Your task to perform on an android device: open app "Instagram" (install if not already installed) and go to login screen Image 0: 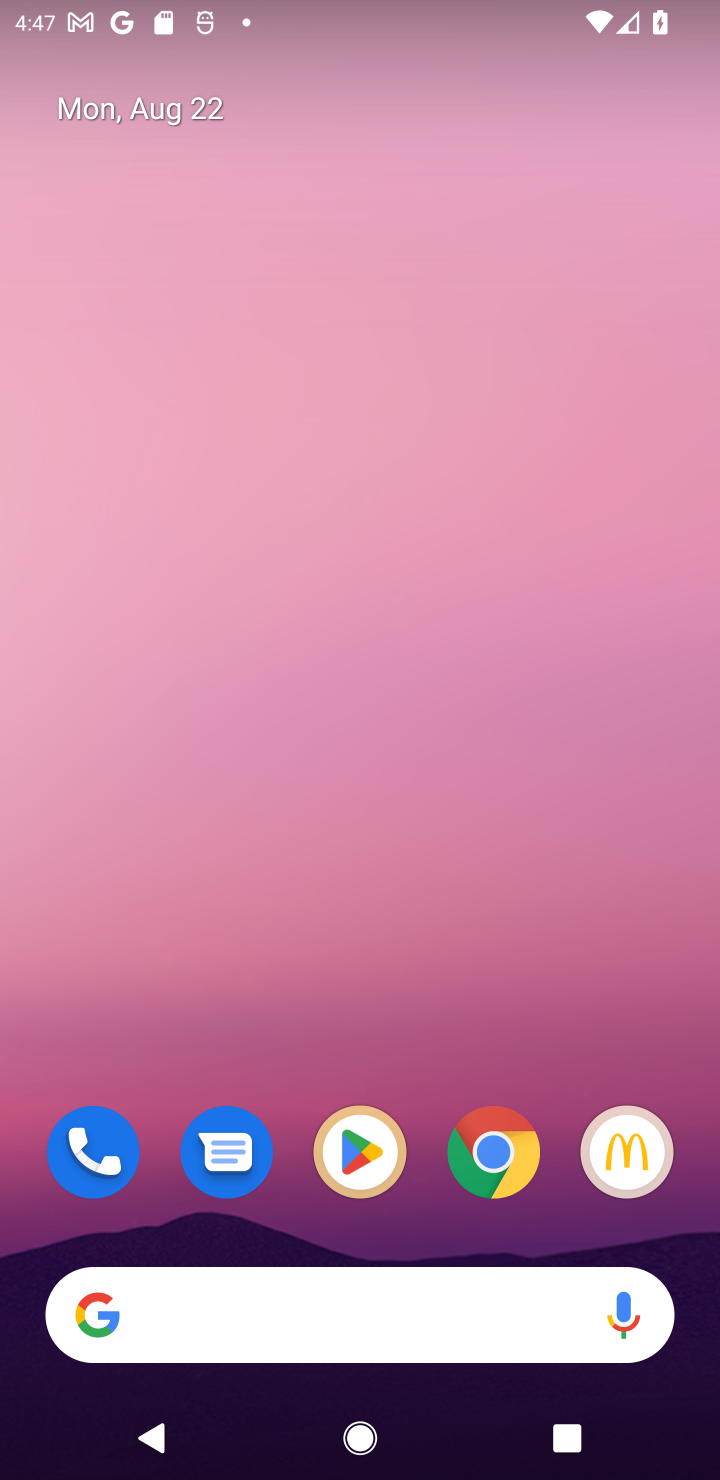
Step 0: click (356, 1189)
Your task to perform on an android device: open app "Instagram" (install if not already installed) and go to login screen Image 1: 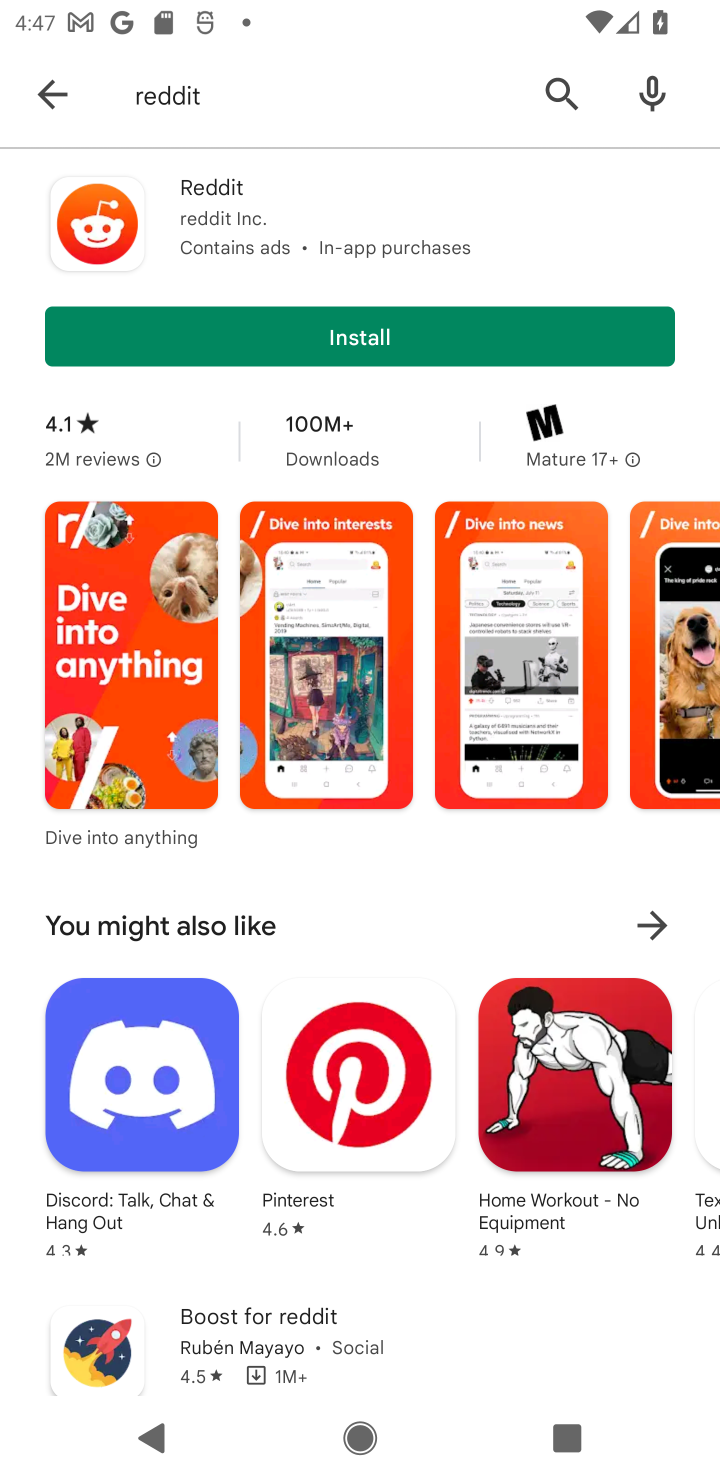
Step 1: click (35, 95)
Your task to perform on an android device: open app "Instagram" (install if not already installed) and go to login screen Image 2: 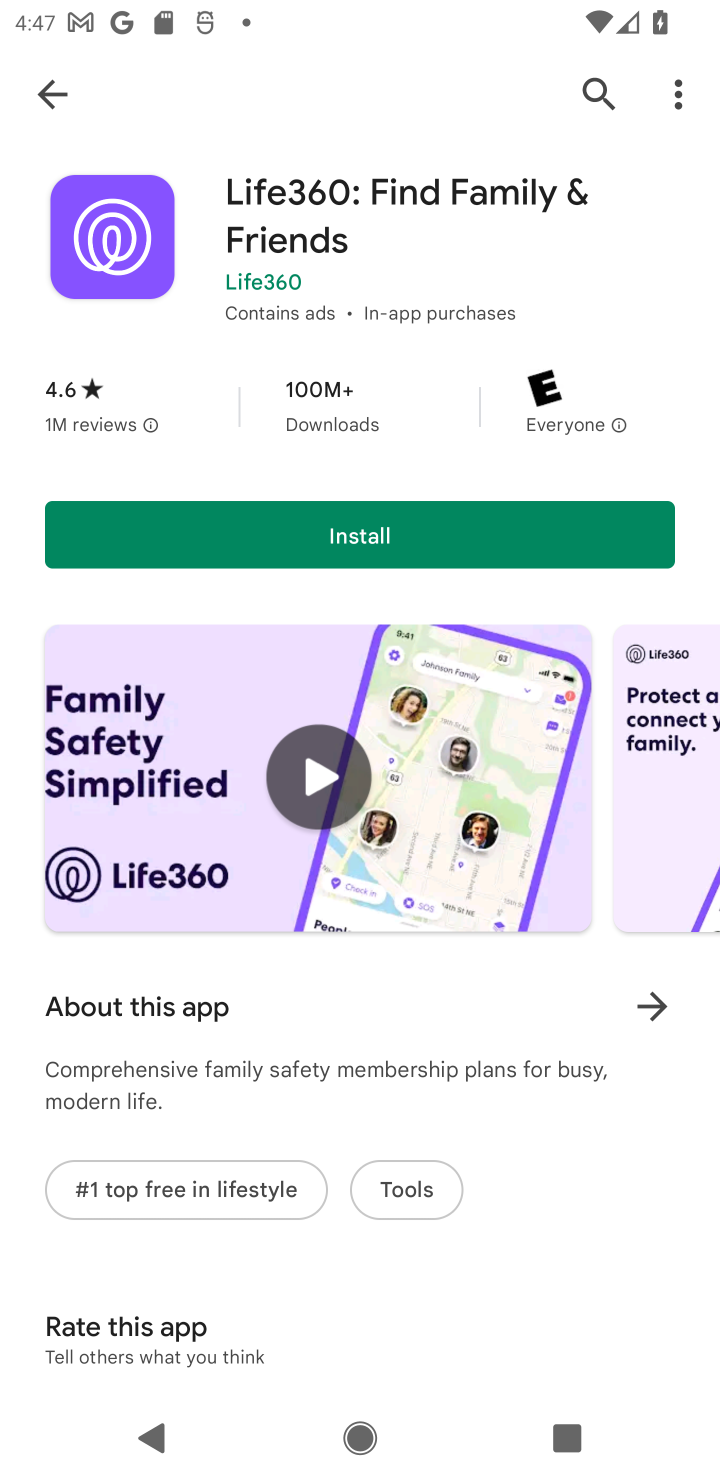
Step 2: click (612, 91)
Your task to perform on an android device: open app "Instagram" (install if not already installed) and go to login screen Image 3: 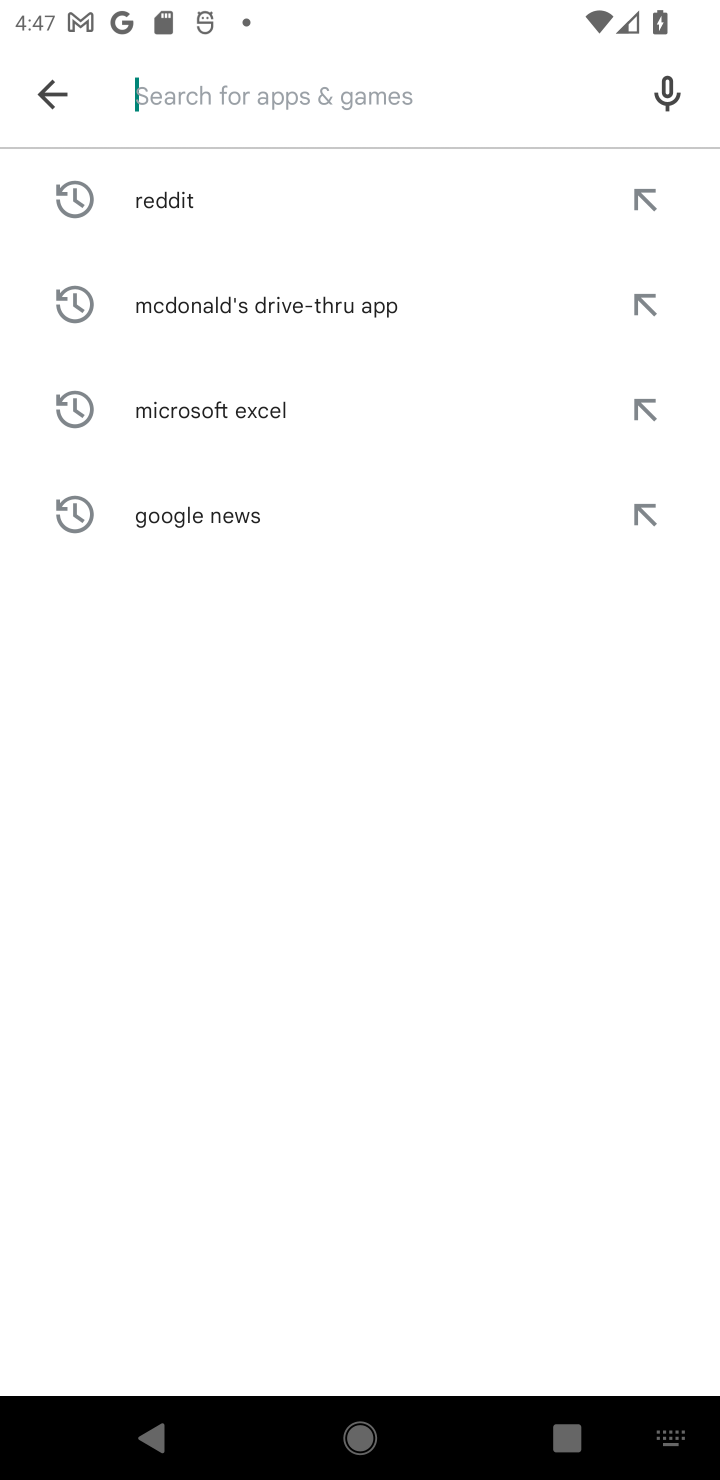
Step 3: type "Instagram"
Your task to perform on an android device: open app "Instagram" (install if not already installed) and go to login screen Image 4: 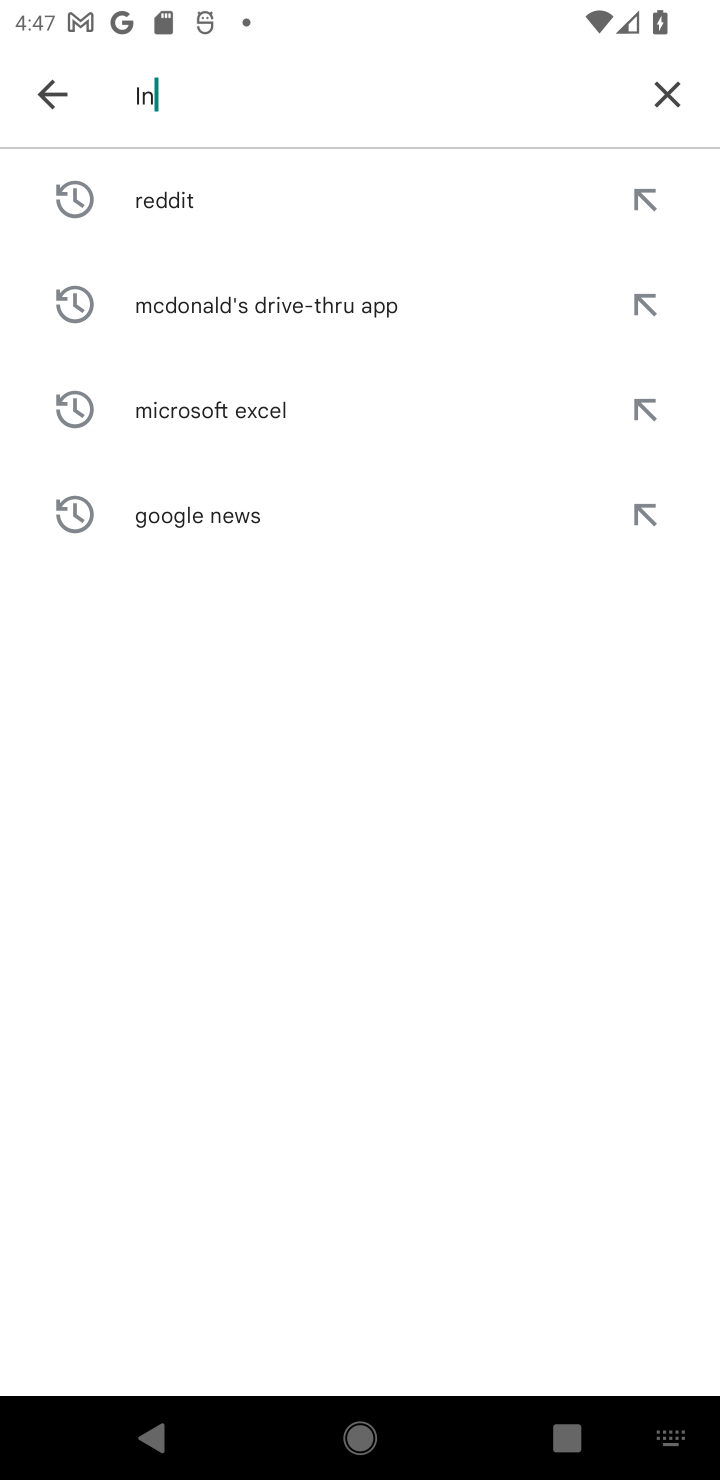
Step 4: type ""
Your task to perform on an android device: open app "Instagram" (install if not already installed) and go to login screen Image 5: 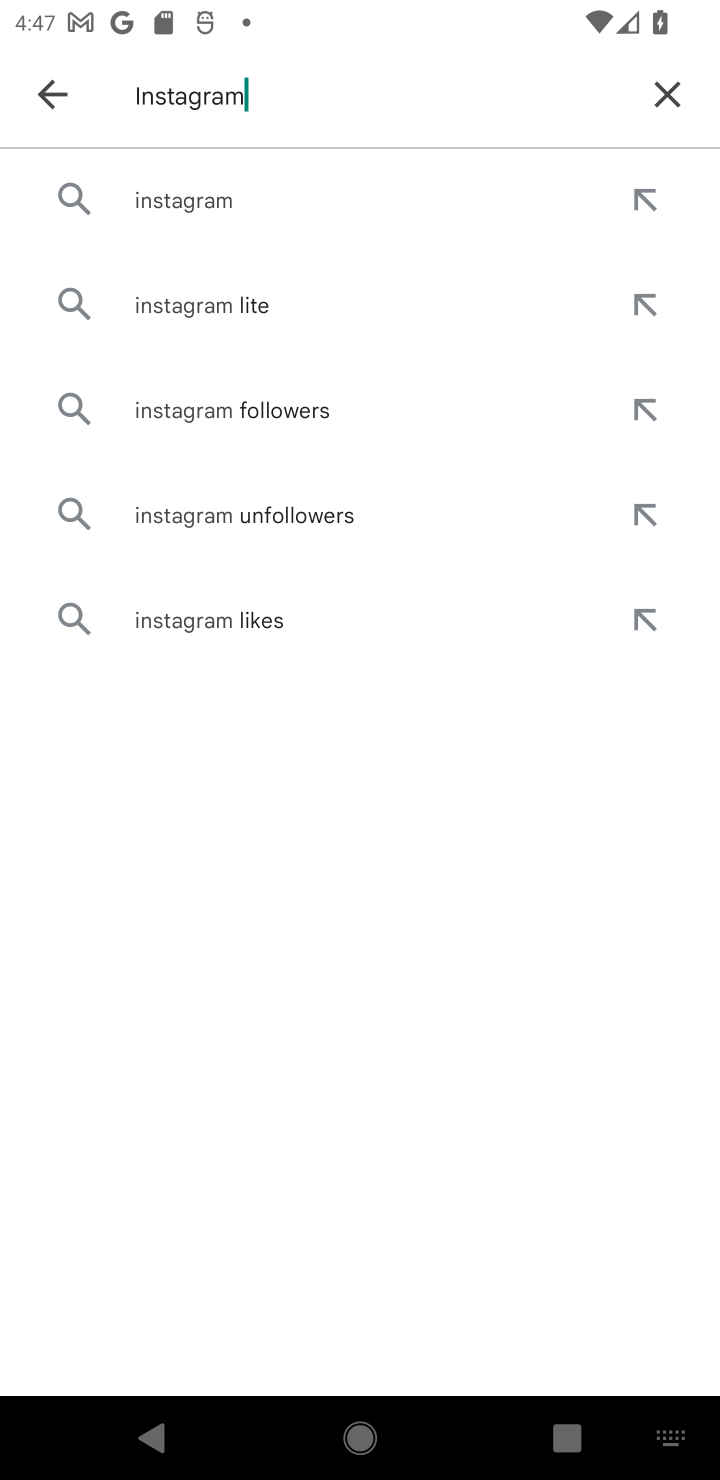
Step 5: click (213, 208)
Your task to perform on an android device: open app "Instagram" (install if not already installed) and go to login screen Image 6: 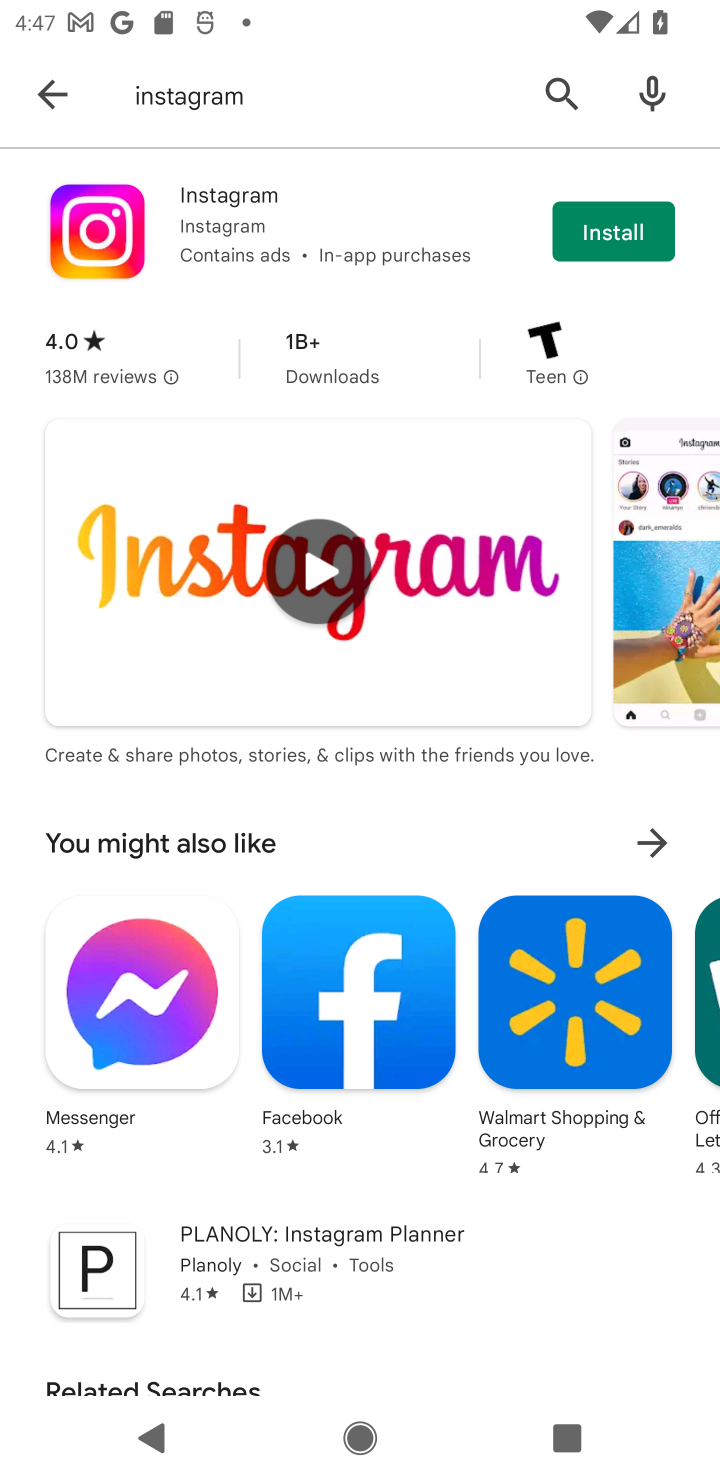
Step 6: click (619, 256)
Your task to perform on an android device: open app "Instagram" (install if not already installed) and go to login screen Image 7: 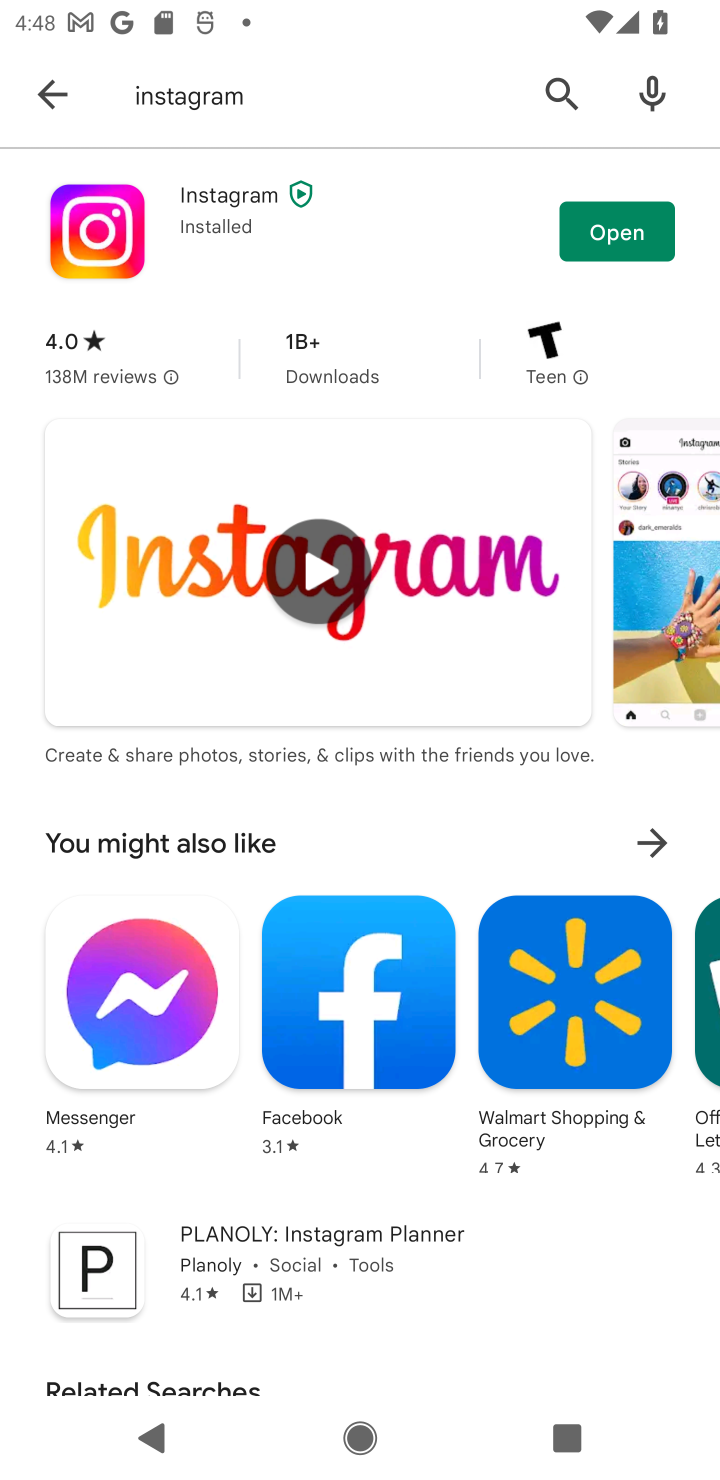
Step 7: click (626, 263)
Your task to perform on an android device: open app "Instagram" (install if not already installed) and go to login screen Image 8: 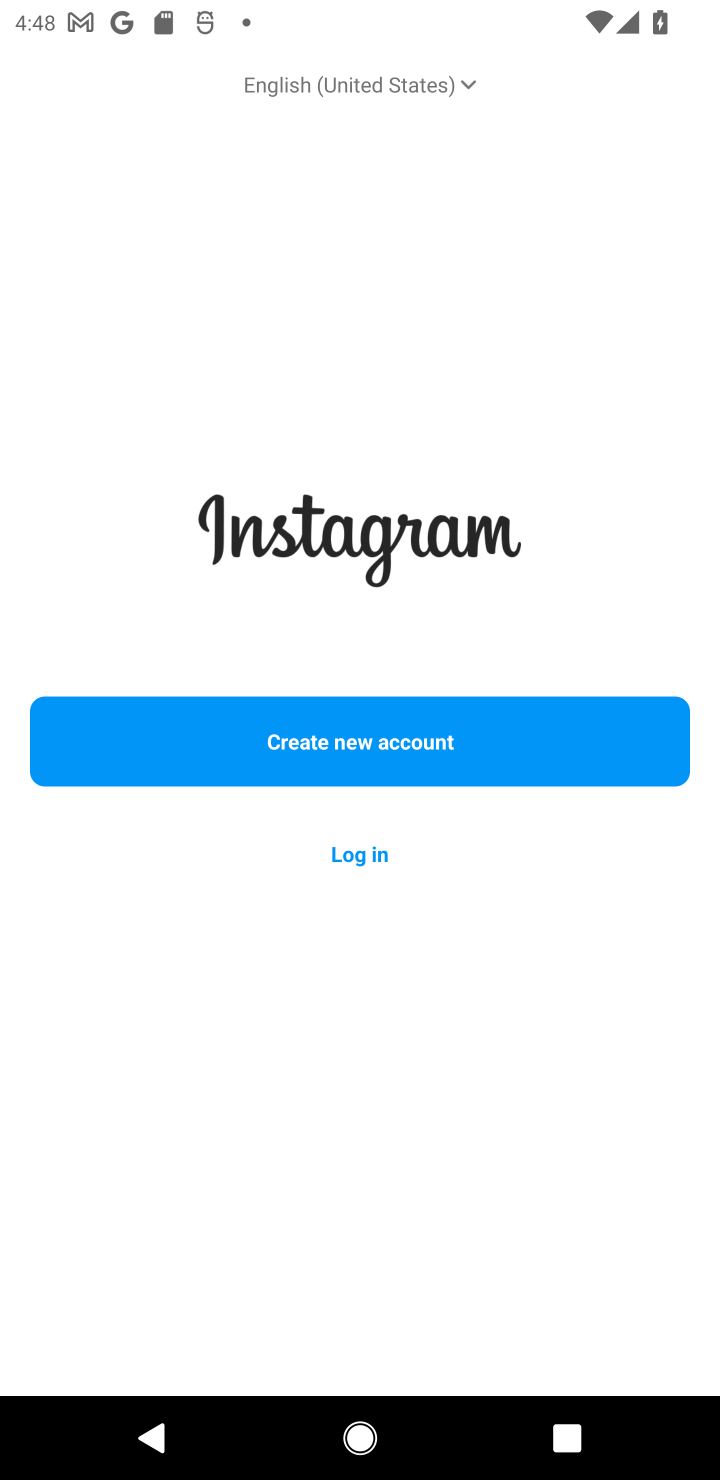
Step 8: click (361, 850)
Your task to perform on an android device: open app "Instagram" (install if not already installed) and go to login screen Image 9: 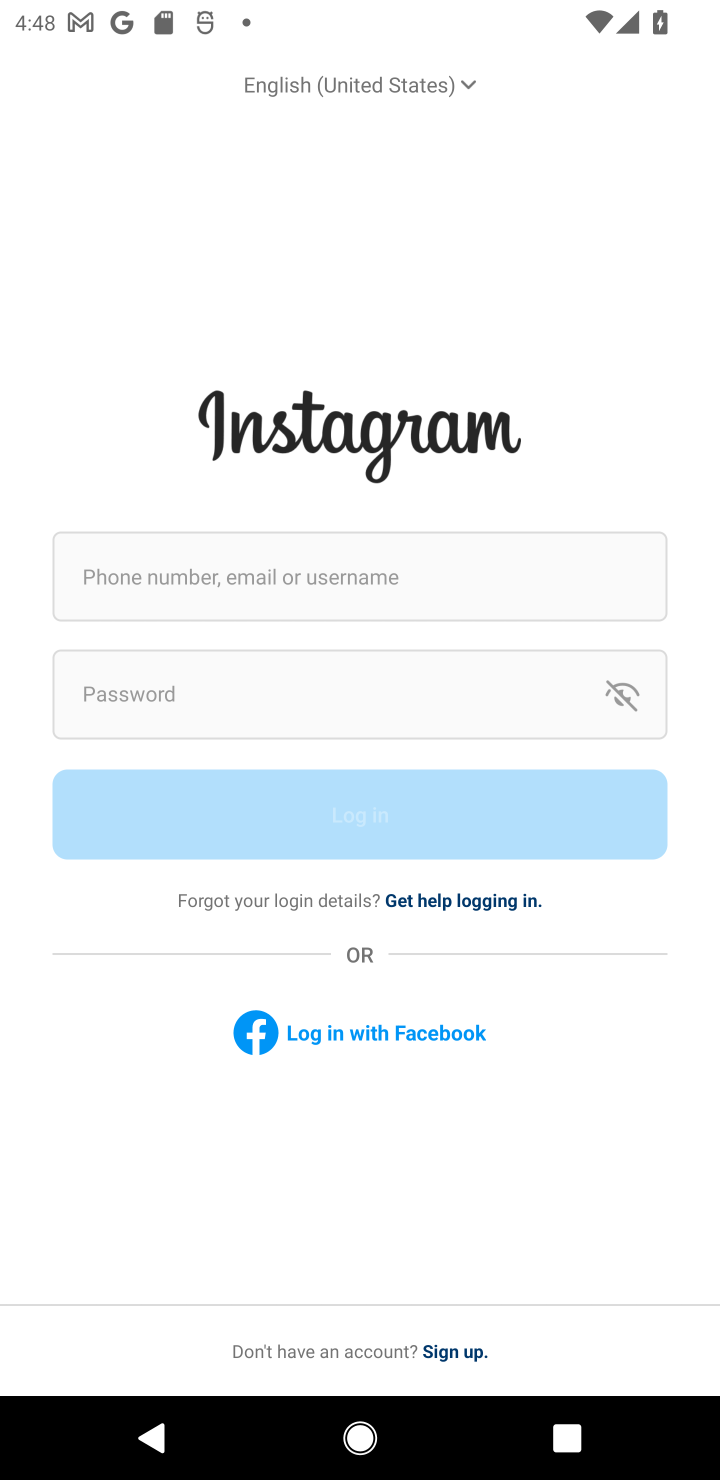
Step 9: task complete